Your task to perform on an android device: Go to Yahoo.com Image 0: 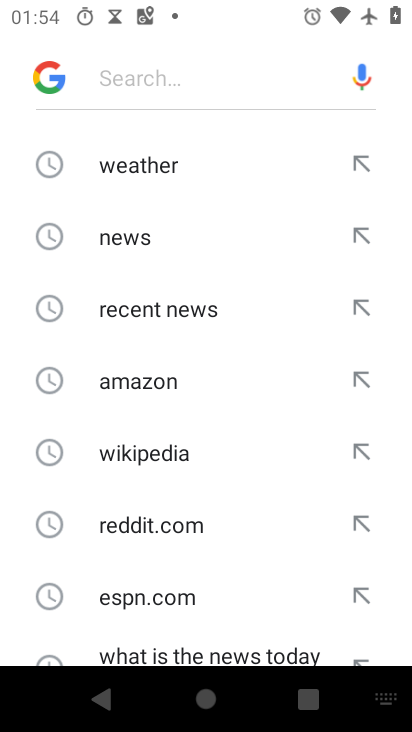
Step 0: press home button
Your task to perform on an android device: Go to Yahoo.com Image 1: 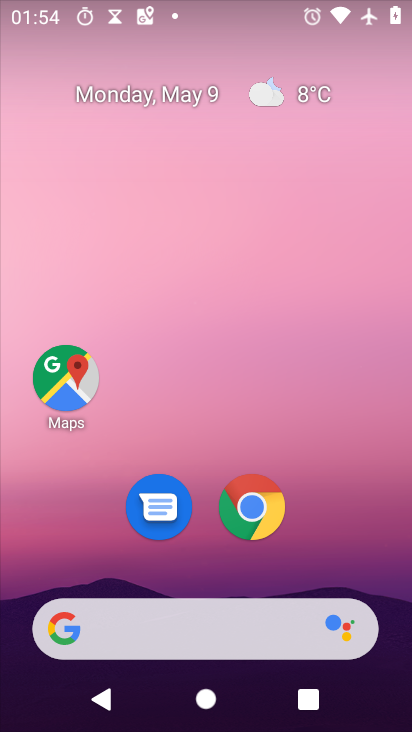
Step 1: click (253, 514)
Your task to perform on an android device: Go to Yahoo.com Image 2: 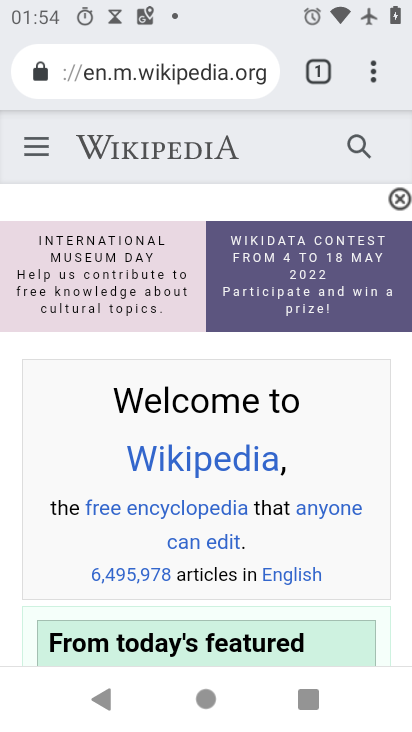
Step 2: click (375, 78)
Your task to perform on an android device: Go to Yahoo.com Image 3: 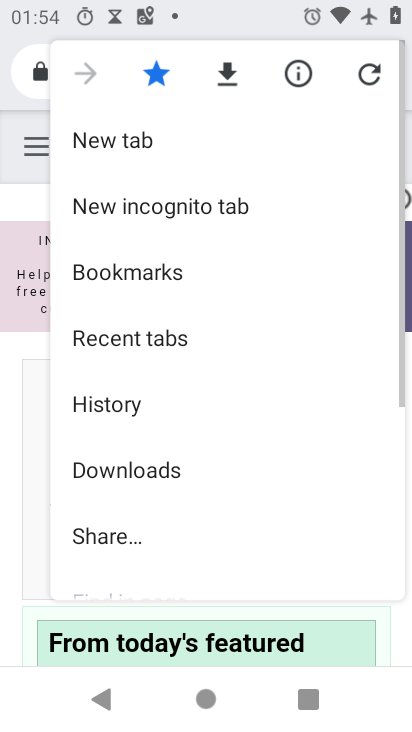
Step 3: click (142, 139)
Your task to perform on an android device: Go to Yahoo.com Image 4: 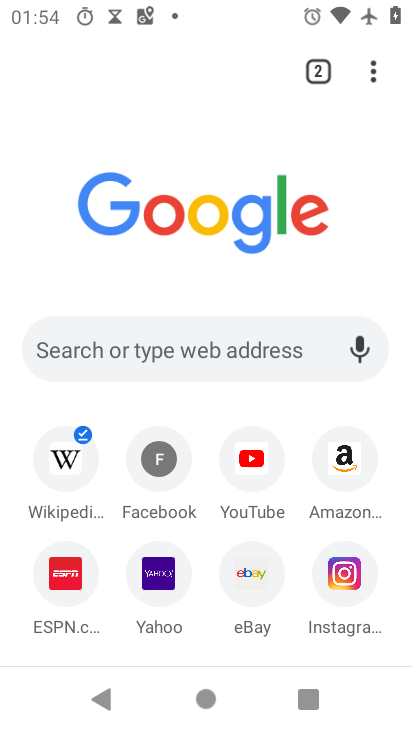
Step 4: click (206, 350)
Your task to perform on an android device: Go to Yahoo.com Image 5: 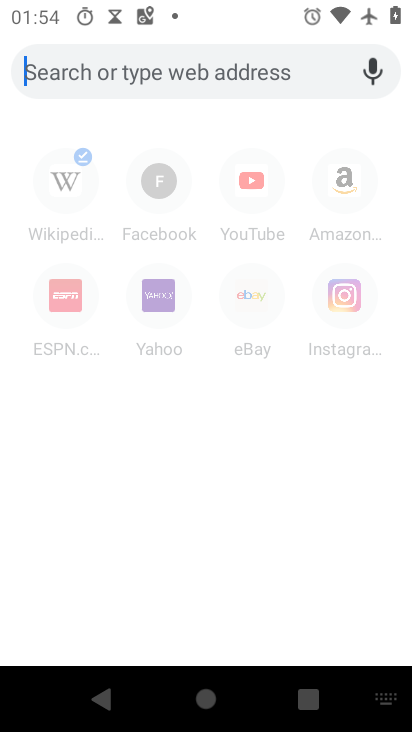
Step 5: type "Yahoo.com"
Your task to perform on an android device: Go to Yahoo.com Image 6: 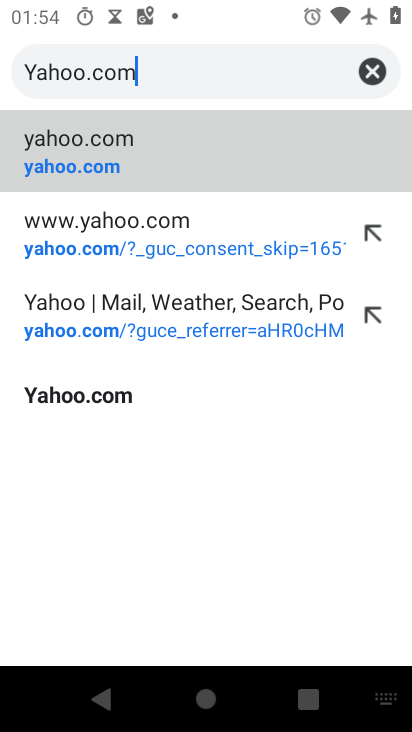
Step 6: click (84, 167)
Your task to perform on an android device: Go to Yahoo.com Image 7: 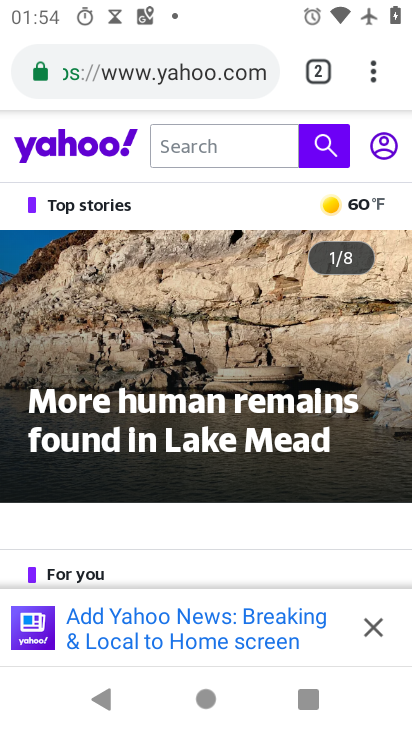
Step 7: task complete